Your task to perform on an android device: Open the web browser Image 0: 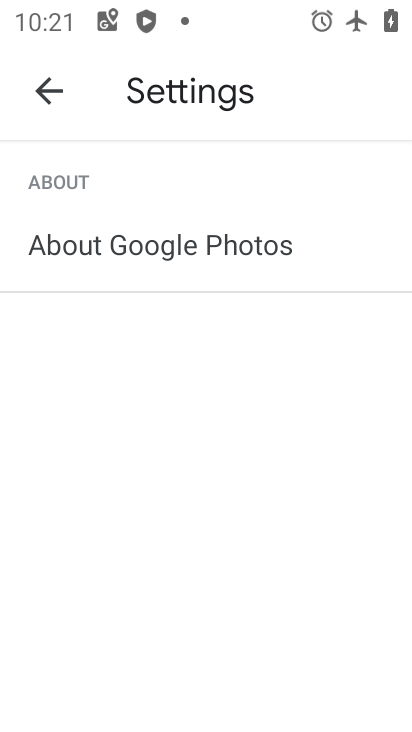
Step 0: press home button
Your task to perform on an android device: Open the web browser Image 1: 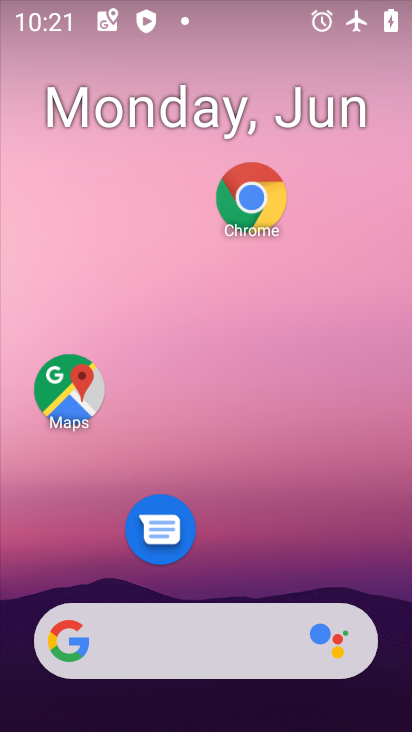
Step 1: click (276, 184)
Your task to perform on an android device: Open the web browser Image 2: 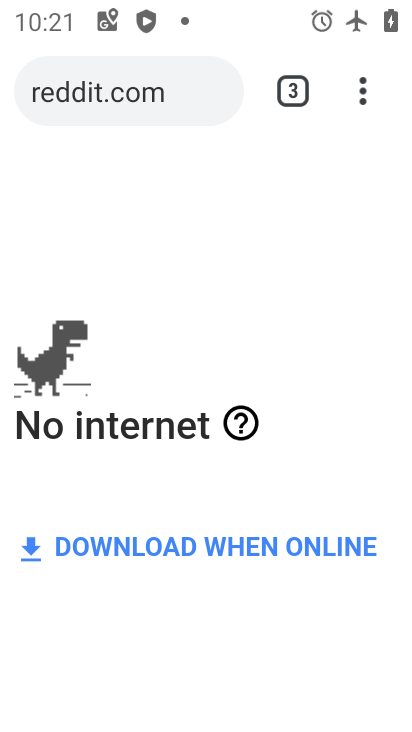
Step 2: task complete